Your task to perform on an android device: Open Youtube and go to the subscriptions tab Image 0: 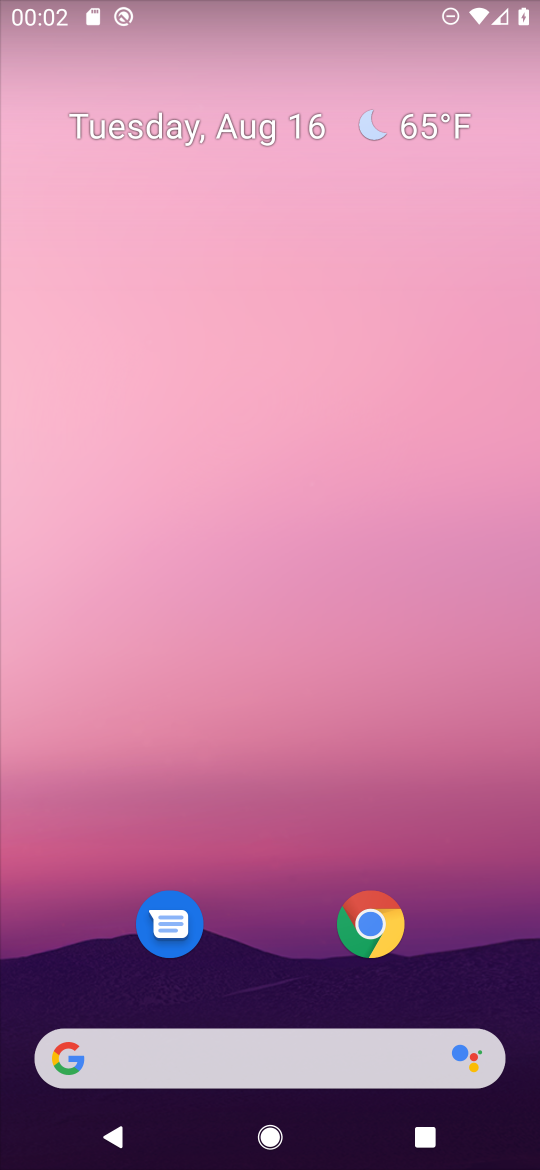
Step 0: drag from (296, 916) to (287, 272)
Your task to perform on an android device: Open Youtube and go to the subscriptions tab Image 1: 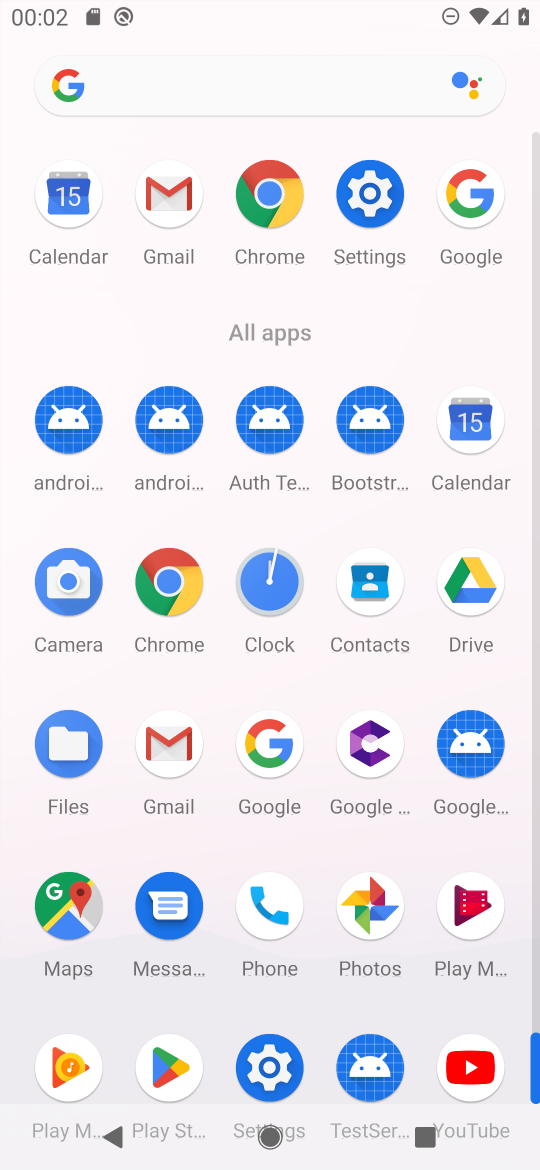
Step 1: click (451, 1065)
Your task to perform on an android device: Open Youtube and go to the subscriptions tab Image 2: 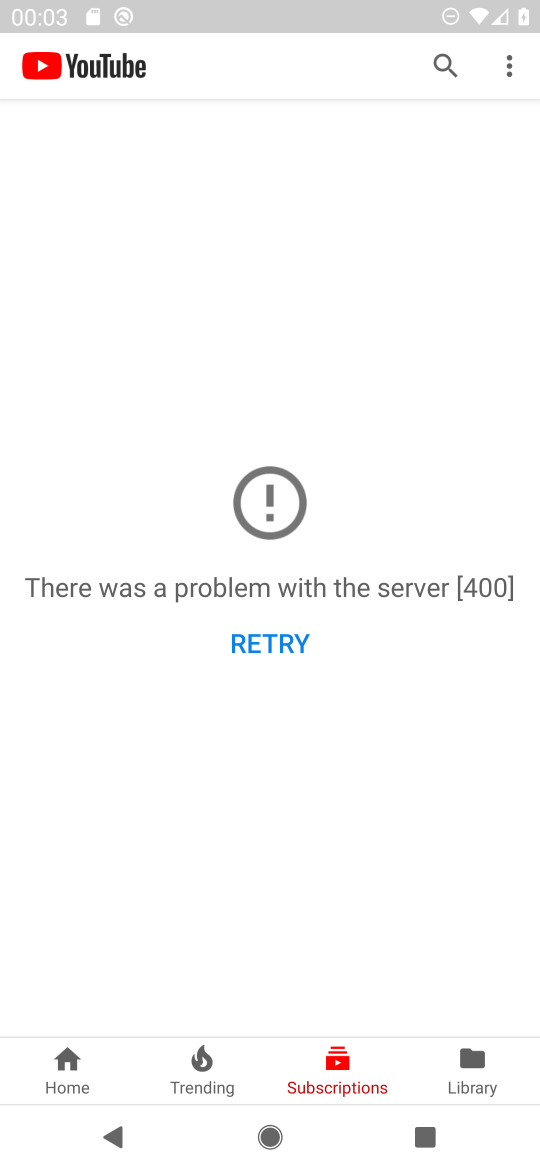
Step 2: task complete